Your task to perform on an android device: check android version Image 0: 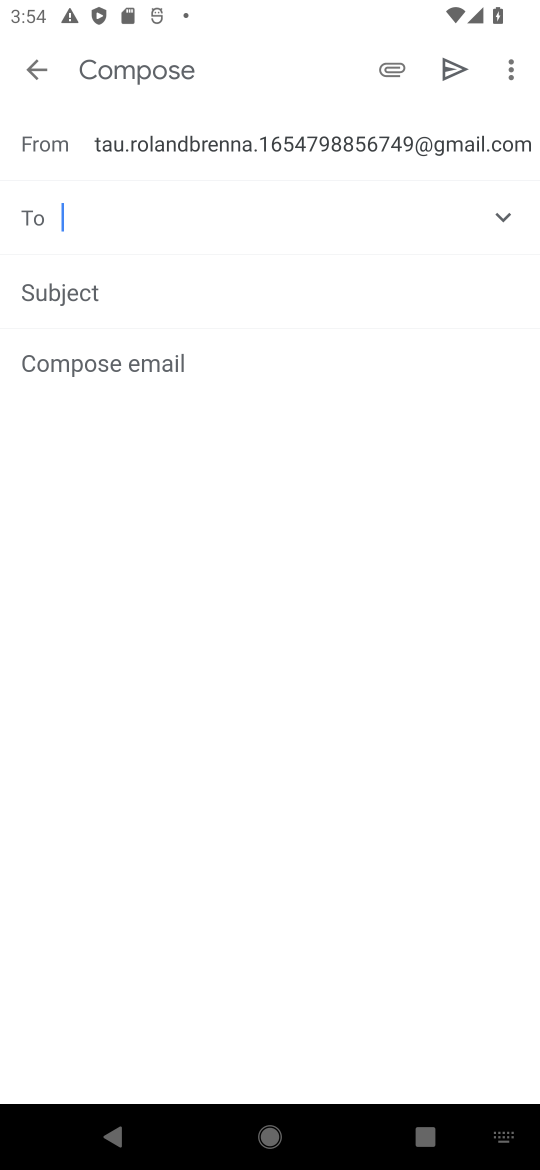
Step 0: press home button
Your task to perform on an android device: check android version Image 1: 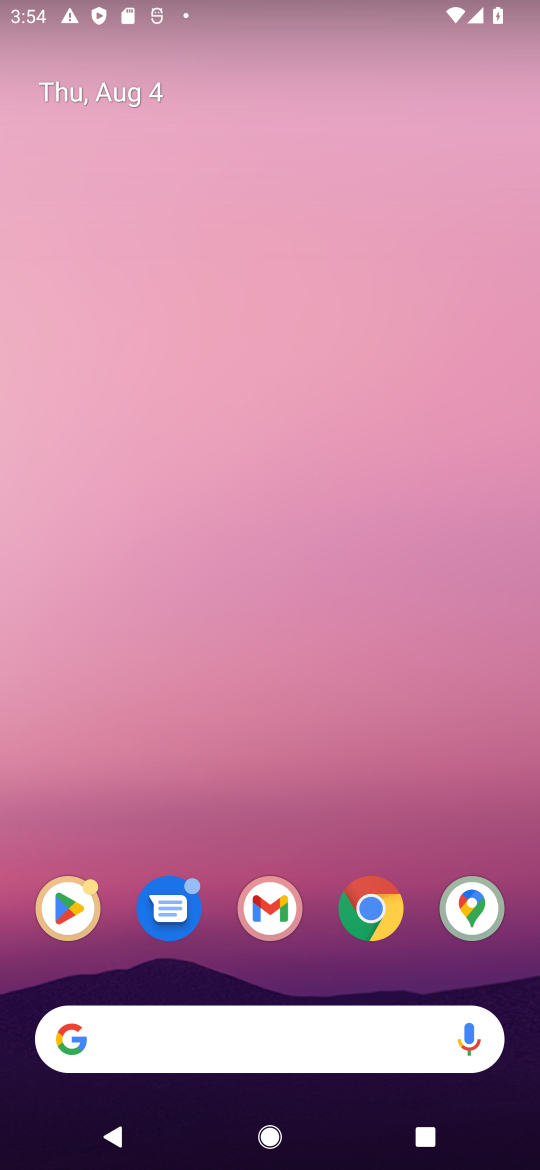
Step 1: drag from (175, 874) to (137, 144)
Your task to perform on an android device: check android version Image 2: 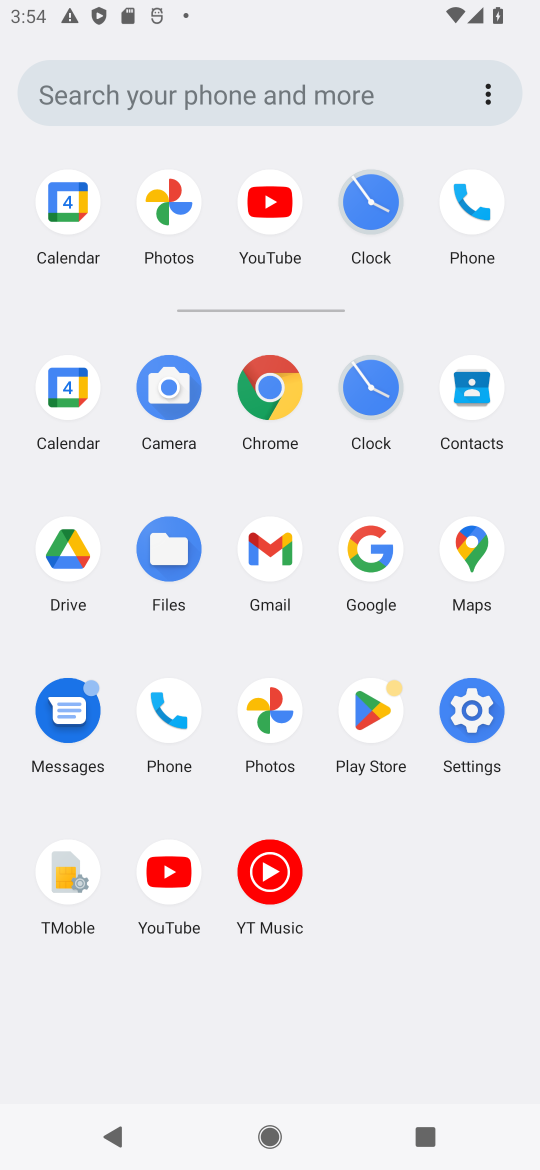
Step 2: click (467, 707)
Your task to perform on an android device: check android version Image 3: 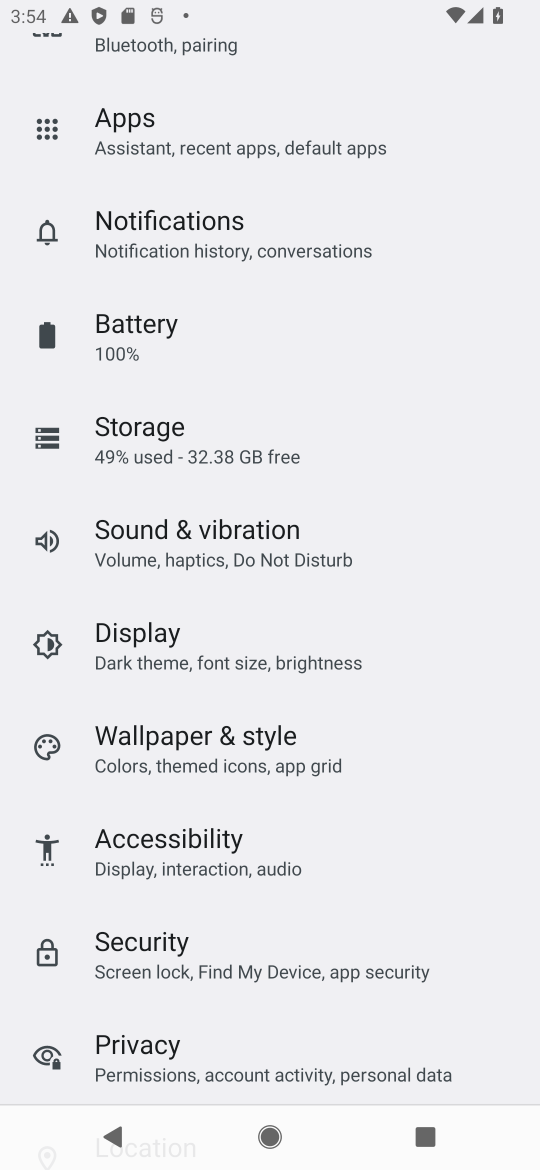
Step 3: drag from (294, 966) to (280, 268)
Your task to perform on an android device: check android version Image 4: 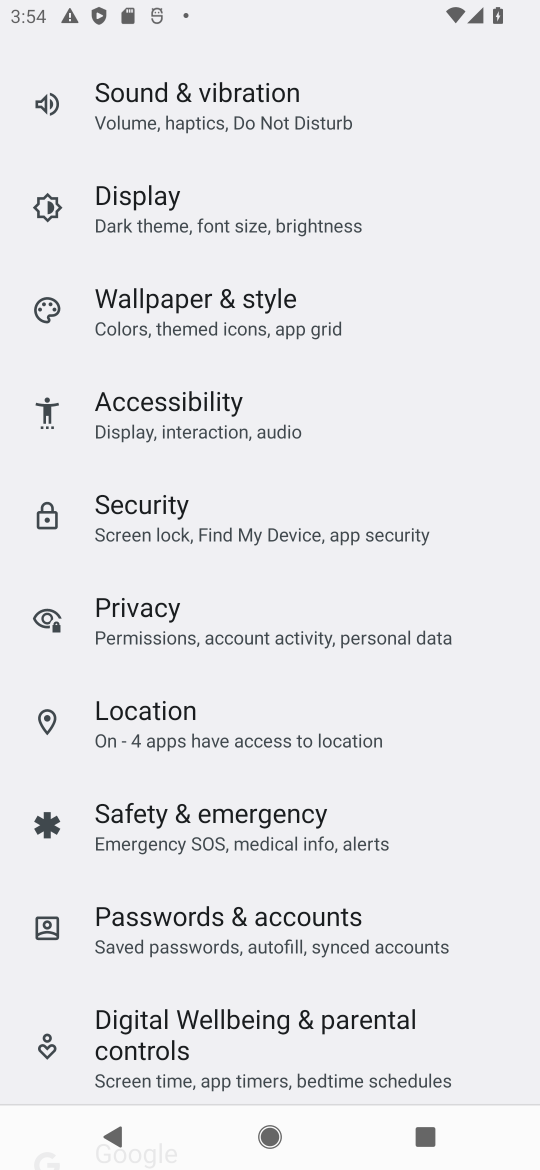
Step 4: drag from (264, 946) to (313, 185)
Your task to perform on an android device: check android version Image 5: 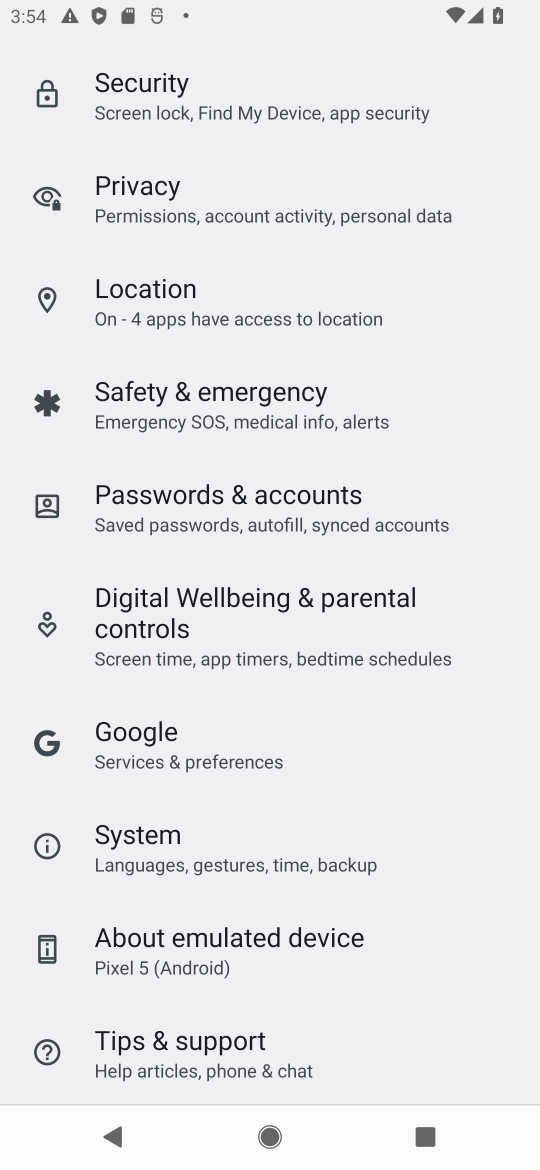
Step 5: drag from (220, 1082) to (160, 301)
Your task to perform on an android device: check android version Image 6: 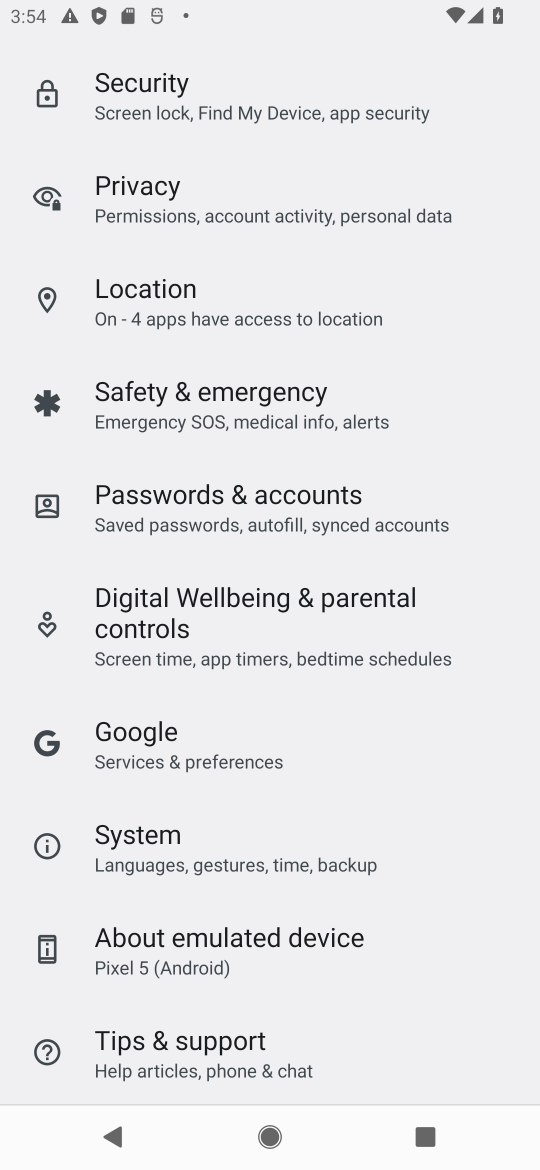
Step 6: click (191, 953)
Your task to perform on an android device: check android version Image 7: 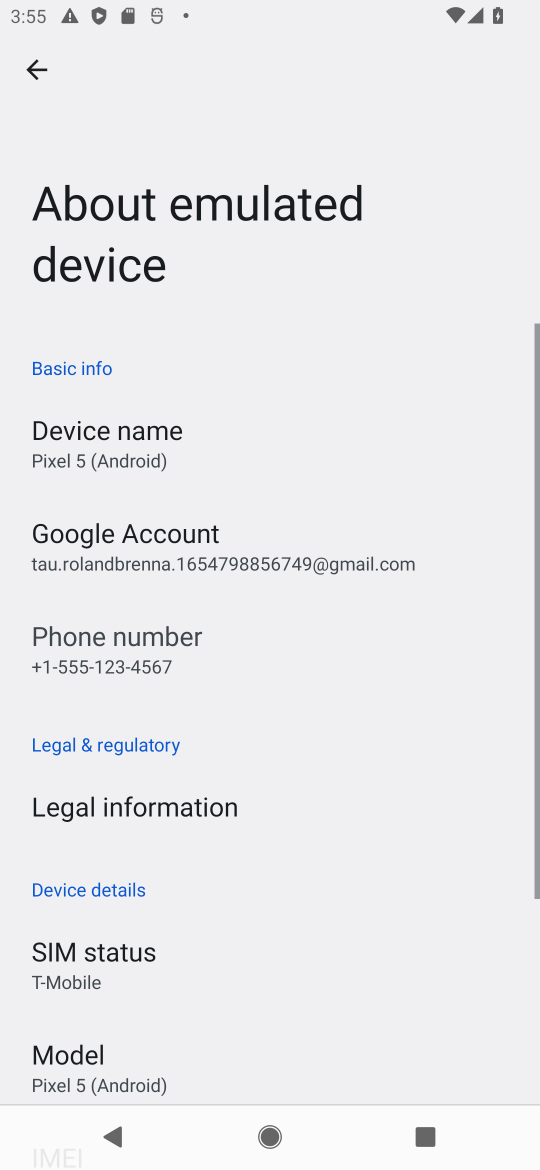
Step 7: drag from (192, 935) to (305, 155)
Your task to perform on an android device: check android version Image 8: 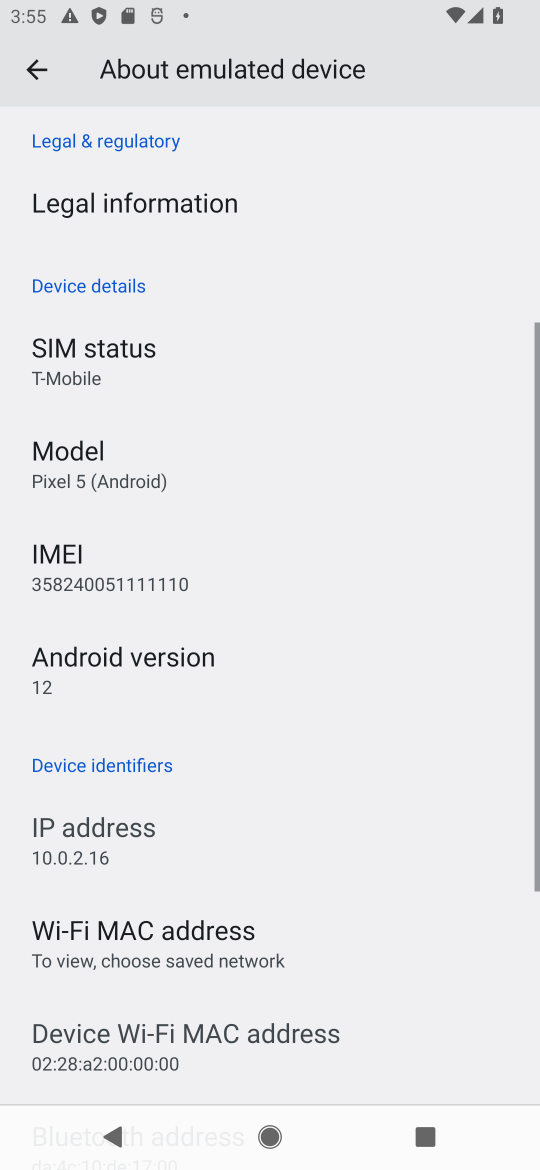
Step 8: drag from (142, 912) to (268, 154)
Your task to perform on an android device: check android version Image 9: 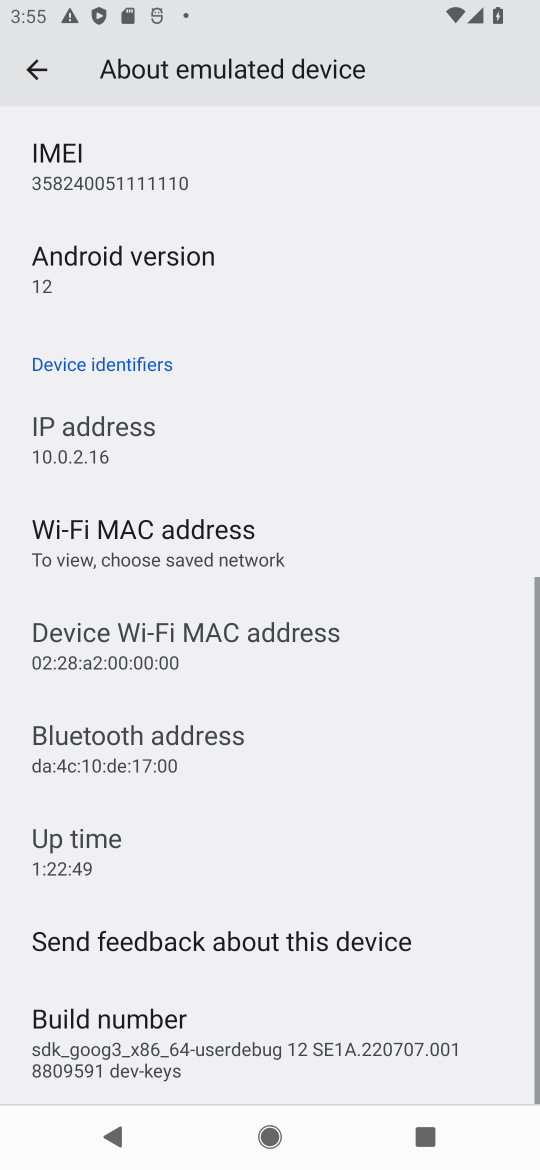
Step 9: drag from (128, 912) to (207, 260)
Your task to perform on an android device: check android version Image 10: 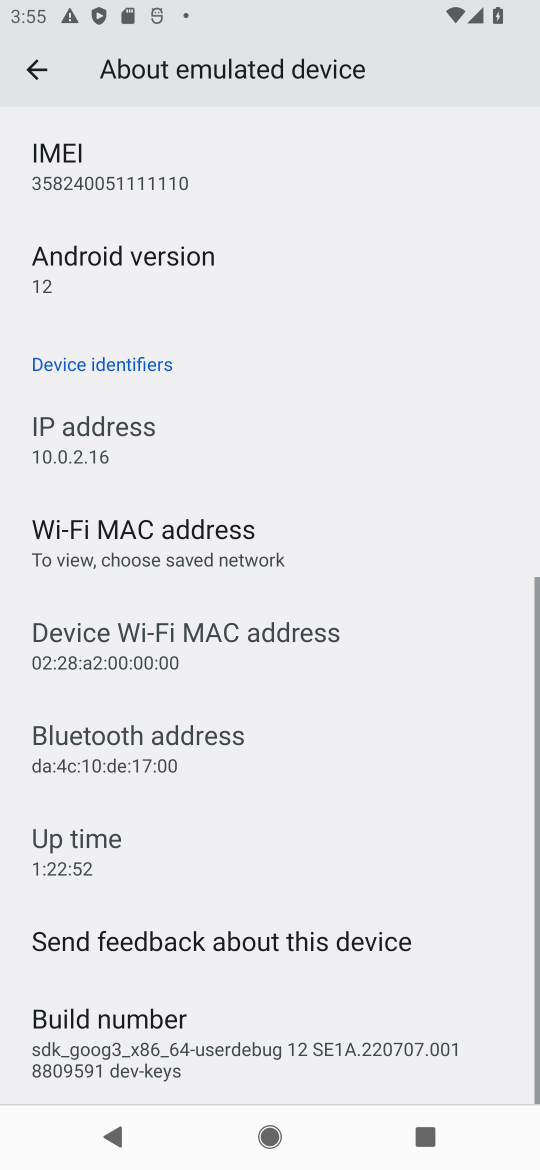
Step 10: drag from (210, 488) to (177, 897)
Your task to perform on an android device: check android version Image 11: 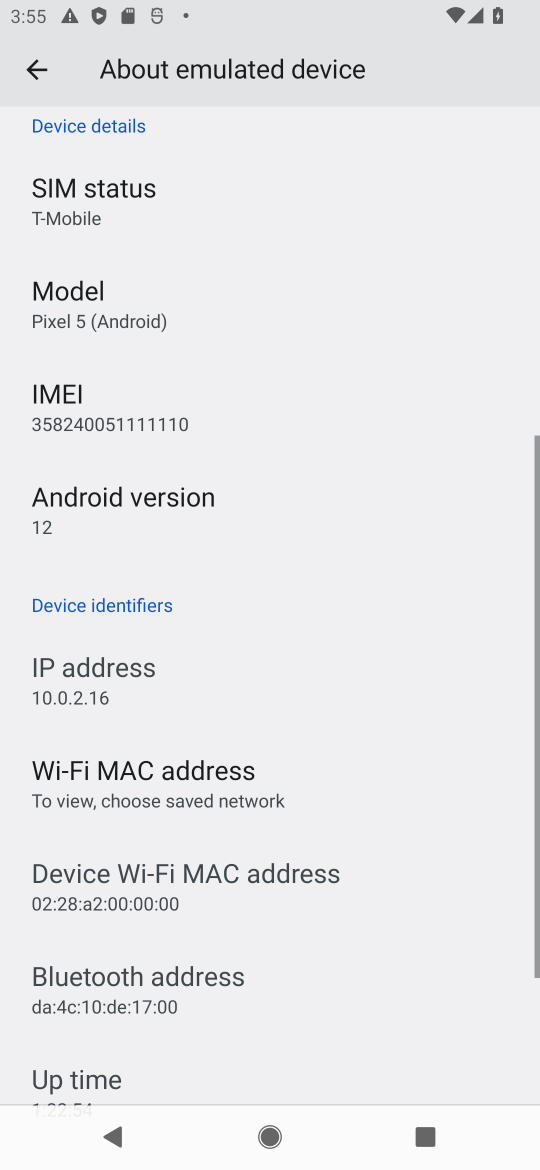
Step 11: click (115, 516)
Your task to perform on an android device: check android version Image 12: 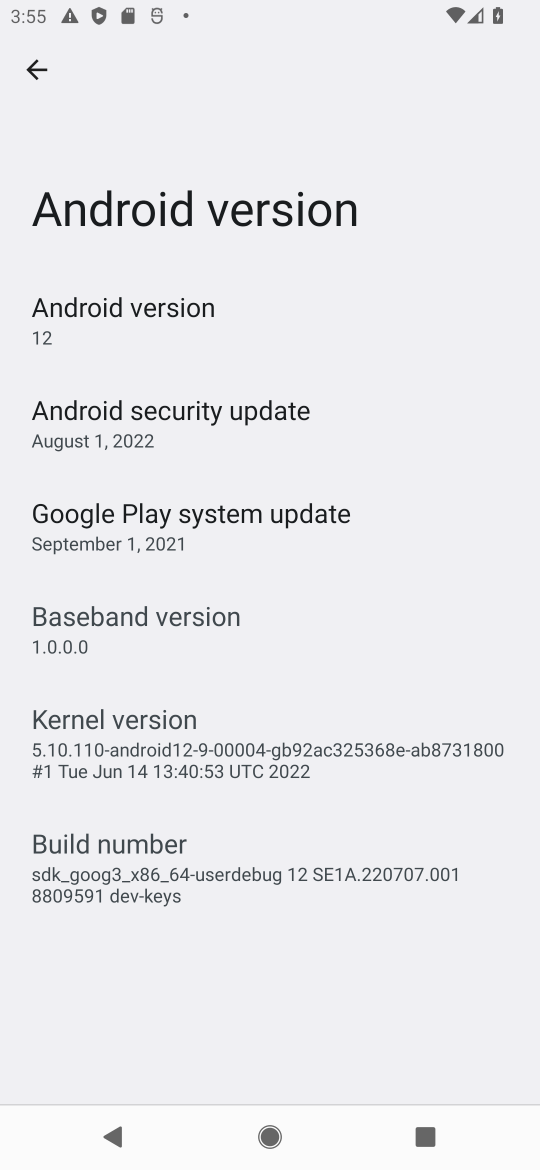
Step 12: task complete